Your task to perform on an android device: turn on improve location accuracy Image 0: 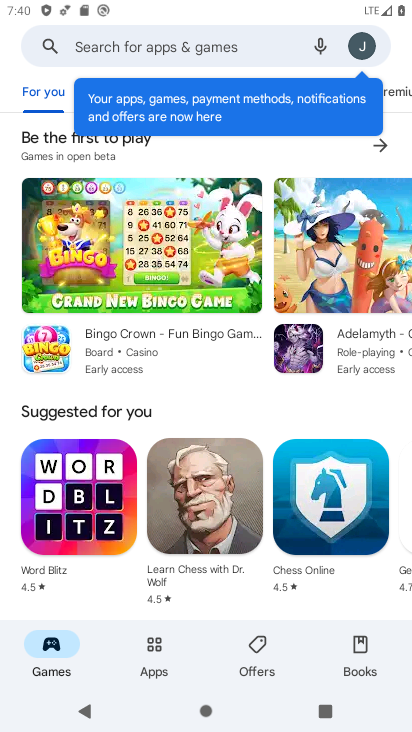
Step 0: press home button
Your task to perform on an android device: turn on improve location accuracy Image 1: 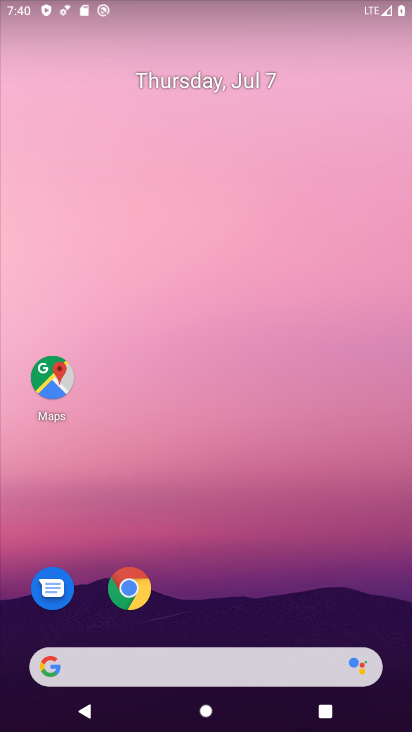
Step 1: drag from (217, 632) to (228, 162)
Your task to perform on an android device: turn on improve location accuracy Image 2: 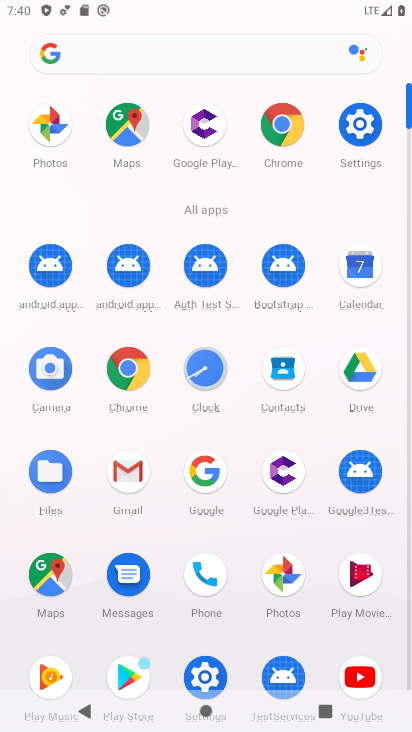
Step 2: click (367, 111)
Your task to perform on an android device: turn on improve location accuracy Image 3: 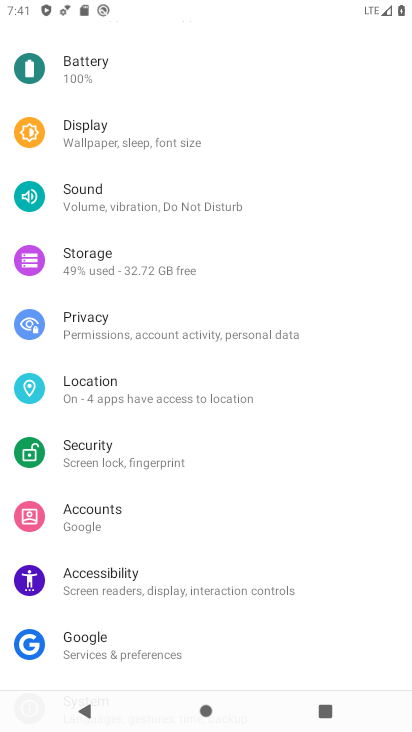
Step 3: click (147, 390)
Your task to perform on an android device: turn on improve location accuracy Image 4: 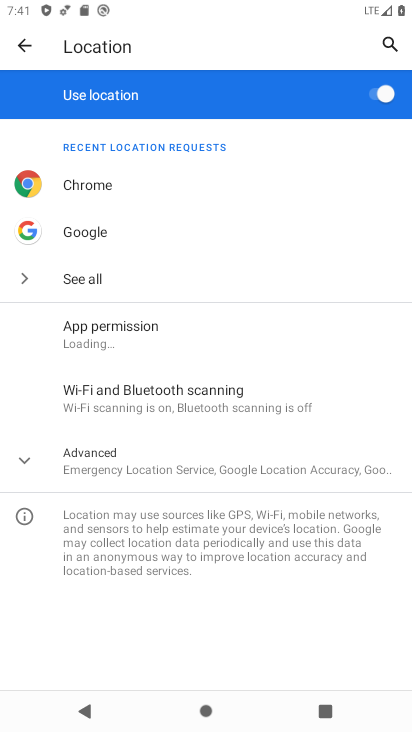
Step 4: click (257, 440)
Your task to perform on an android device: turn on improve location accuracy Image 5: 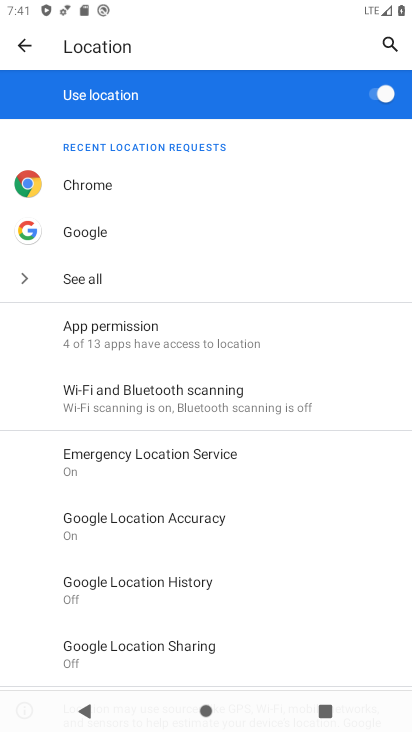
Step 5: click (165, 534)
Your task to perform on an android device: turn on improve location accuracy Image 6: 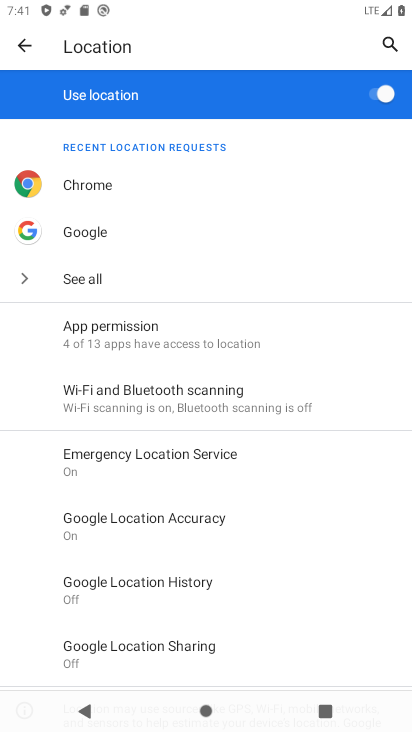
Step 6: click (111, 513)
Your task to perform on an android device: turn on improve location accuracy Image 7: 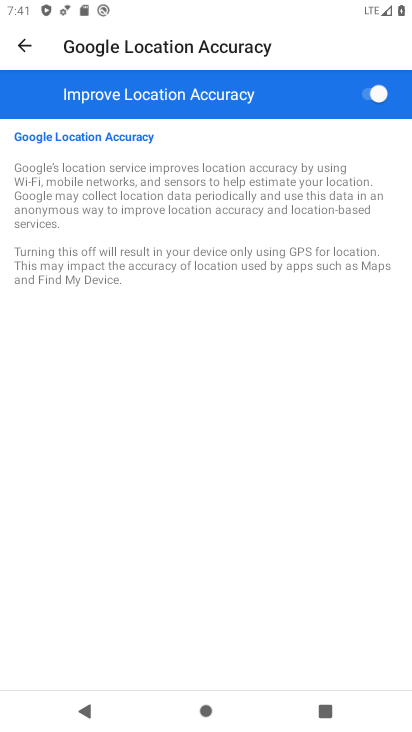
Step 7: task complete